Your task to perform on an android device: Open privacy settings Image 0: 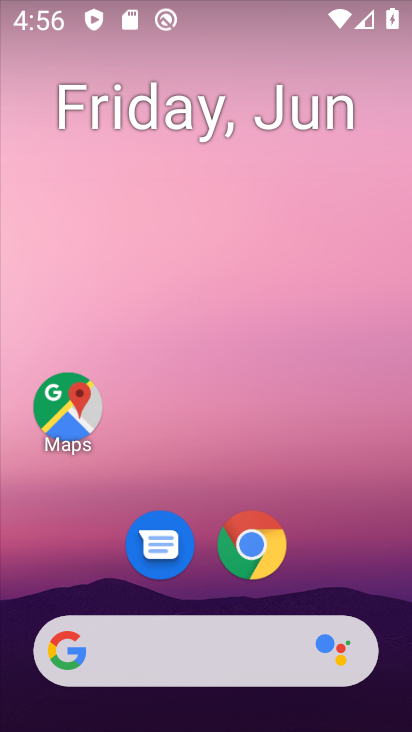
Step 0: press home button
Your task to perform on an android device: Open privacy settings Image 1: 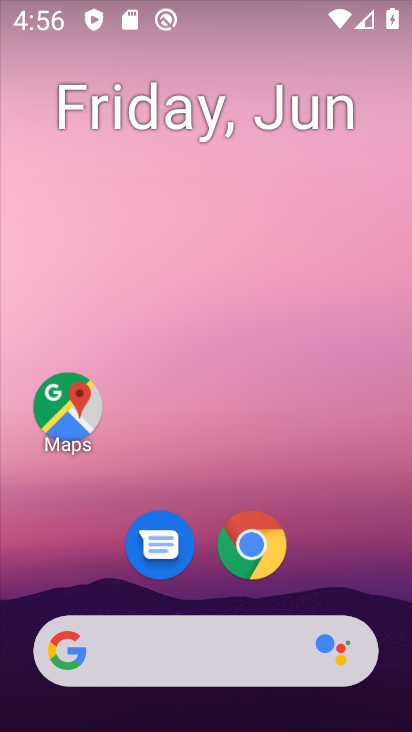
Step 1: drag from (219, 621) to (215, 223)
Your task to perform on an android device: Open privacy settings Image 2: 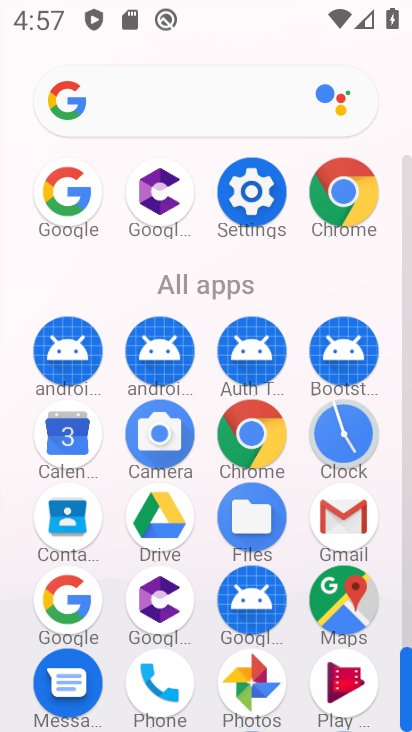
Step 2: click (247, 206)
Your task to perform on an android device: Open privacy settings Image 3: 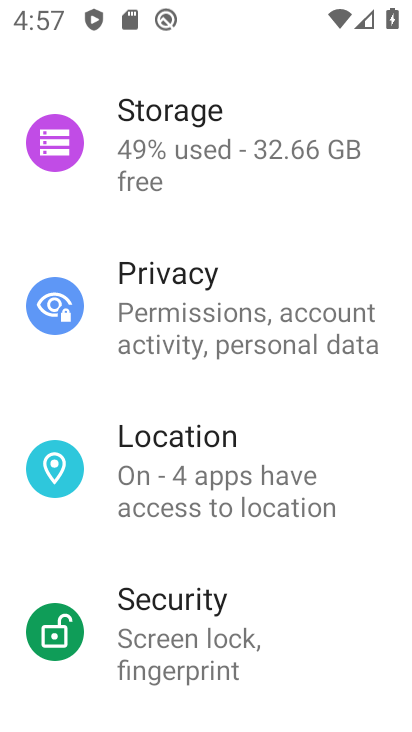
Step 3: click (228, 326)
Your task to perform on an android device: Open privacy settings Image 4: 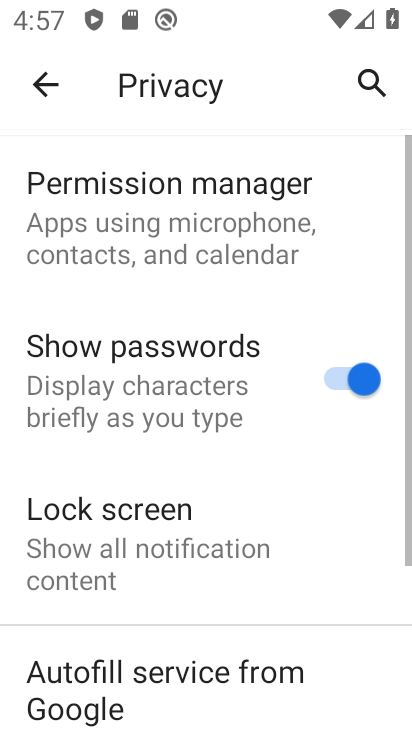
Step 4: drag from (211, 641) to (187, 245)
Your task to perform on an android device: Open privacy settings Image 5: 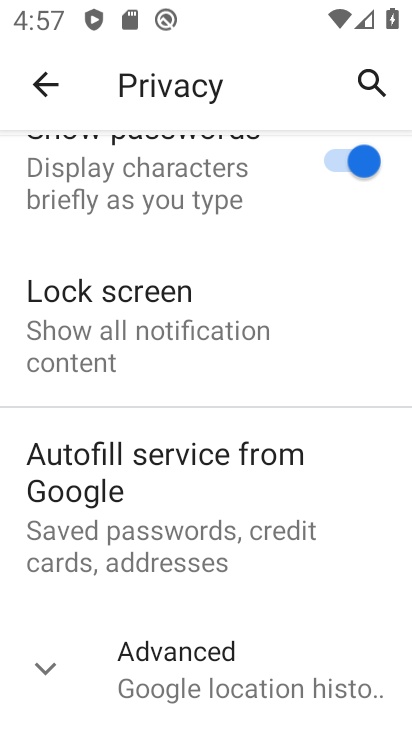
Step 5: click (223, 662)
Your task to perform on an android device: Open privacy settings Image 6: 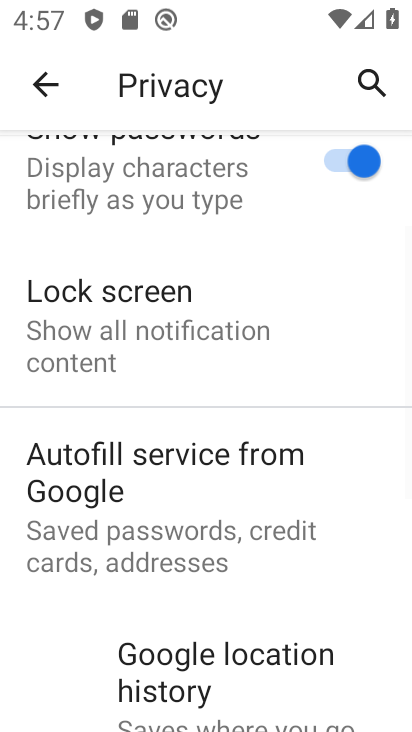
Step 6: task complete